Your task to perform on an android device: Go to Yahoo.com Image 0: 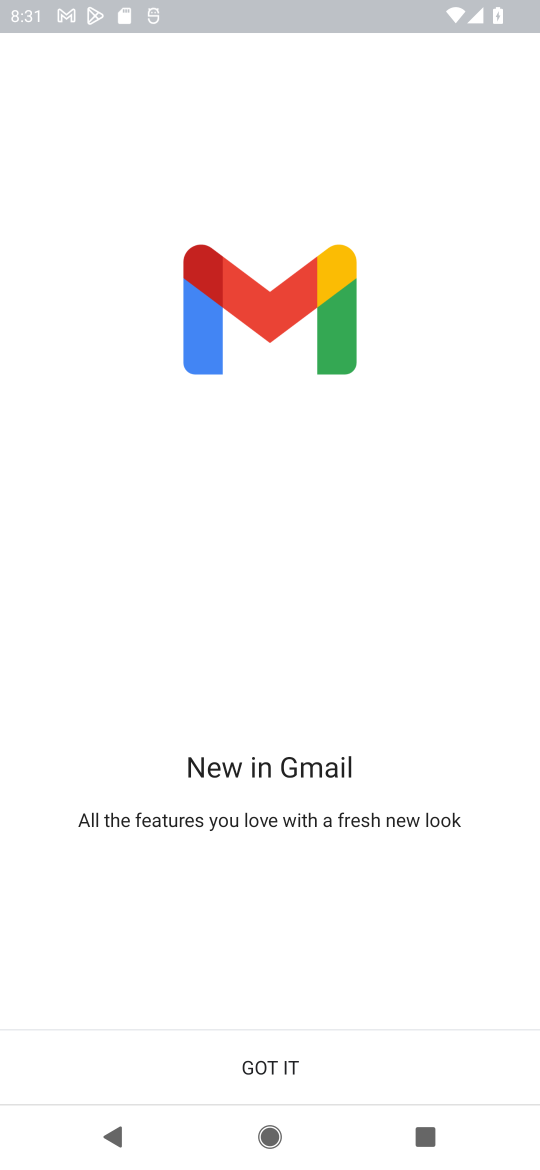
Step 0: press home button
Your task to perform on an android device: Go to Yahoo.com Image 1: 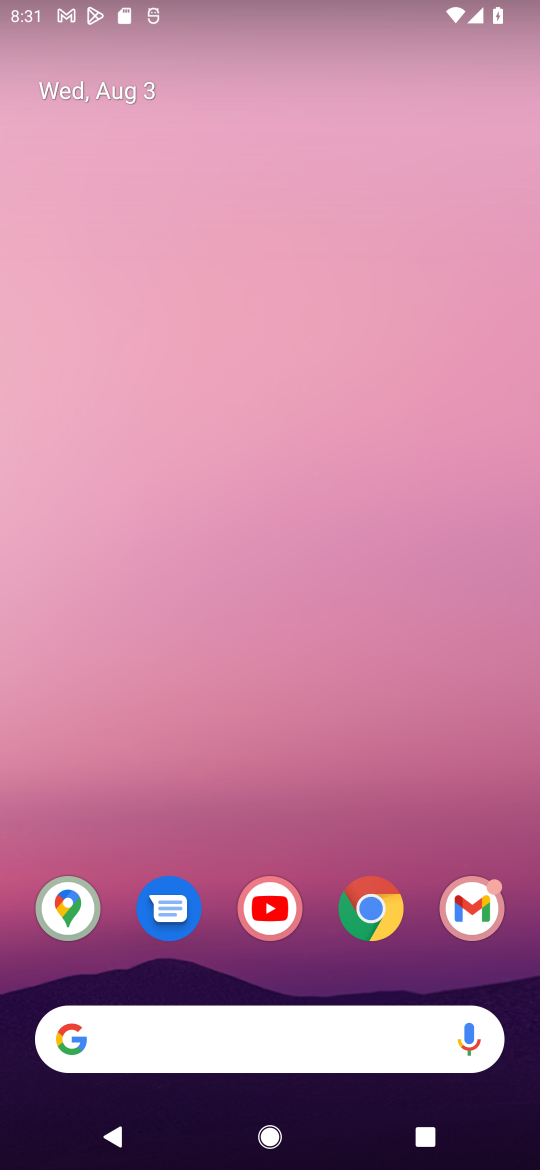
Step 1: click (388, 898)
Your task to perform on an android device: Go to Yahoo.com Image 2: 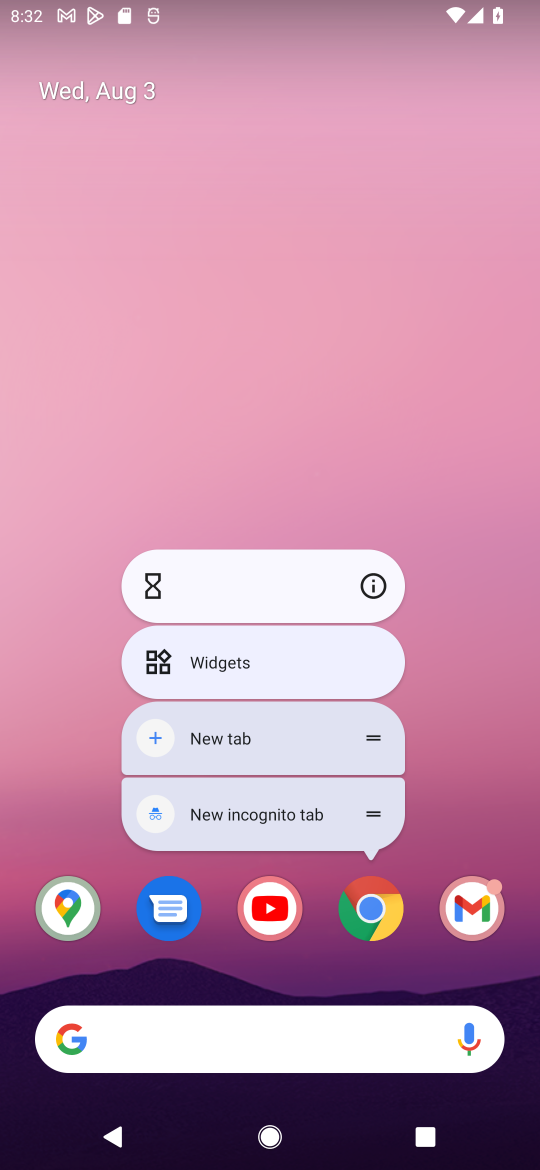
Step 2: click (369, 899)
Your task to perform on an android device: Go to Yahoo.com Image 3: 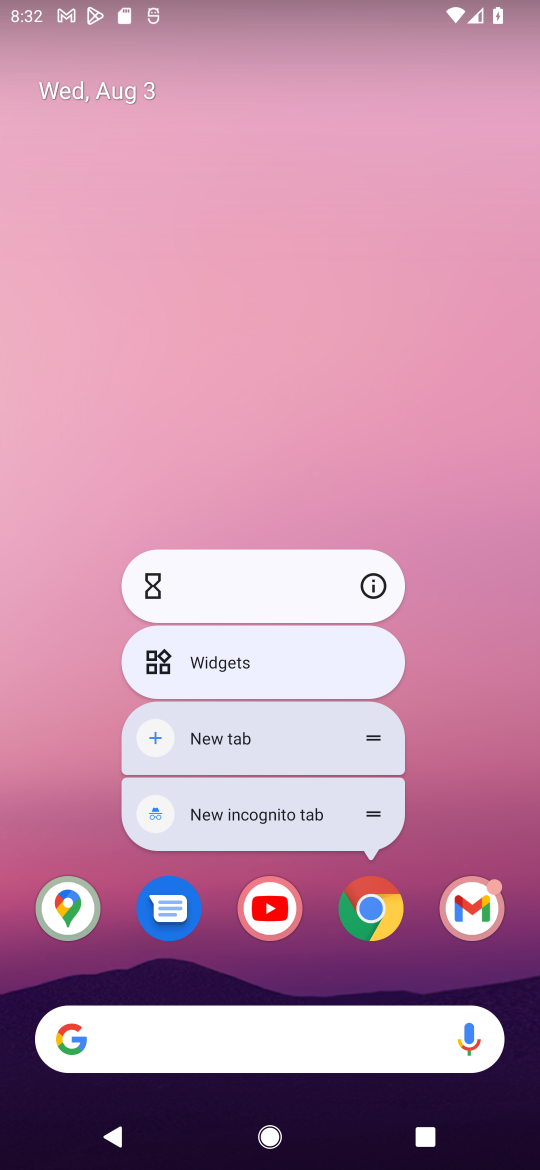
Step 3: click (369, 899)
Your task to perform on an android device: Go to Yahoo.com Image 4: 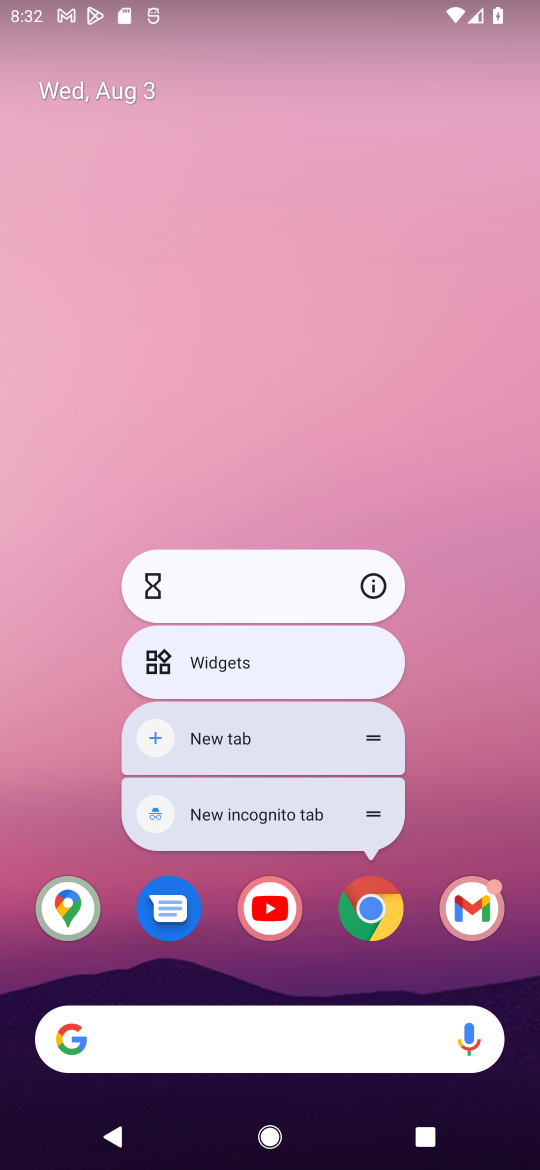
Step 4: click (369, 899)
Your task to perform on an android device: Go to Yahoo.com Image 5: 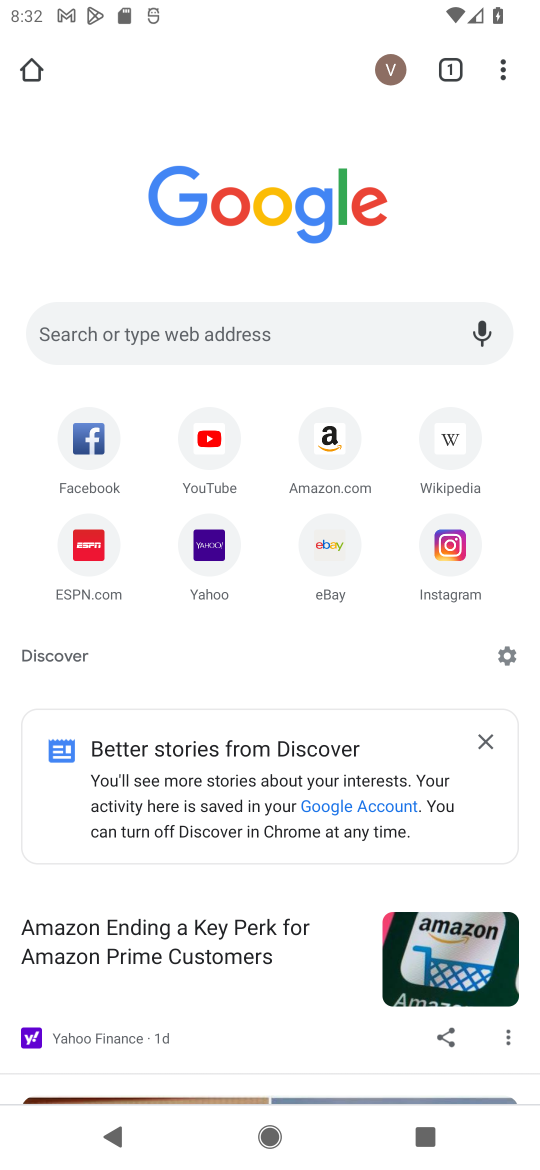
Step 5: click (219, 543)
Your task to perform on an android device: Go to Yahoo.com Image 6: 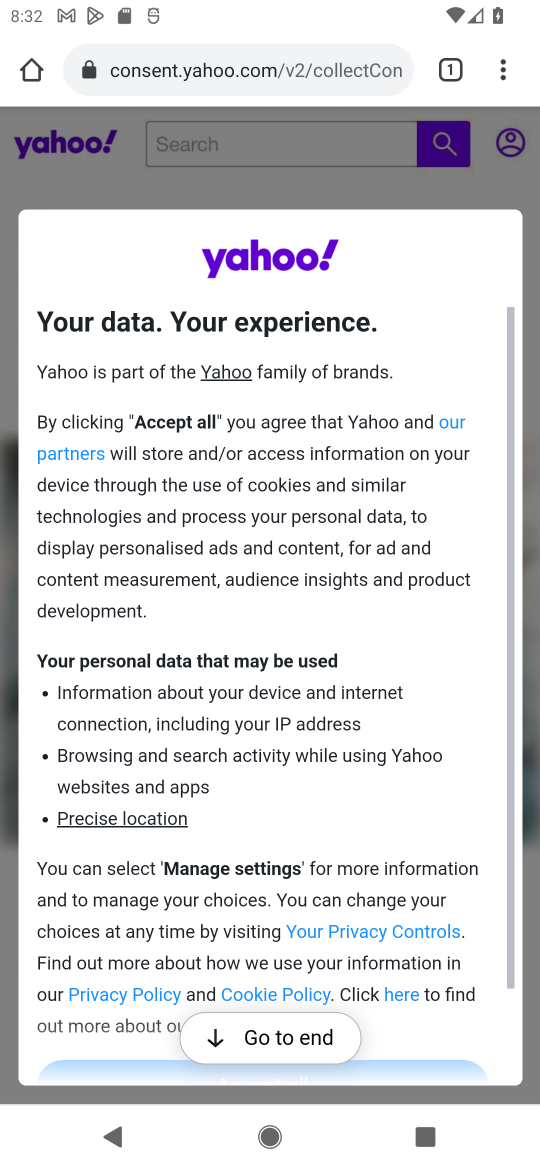
Step 6: task complete